Your task to perform on an android device: show emergency info Image 0: 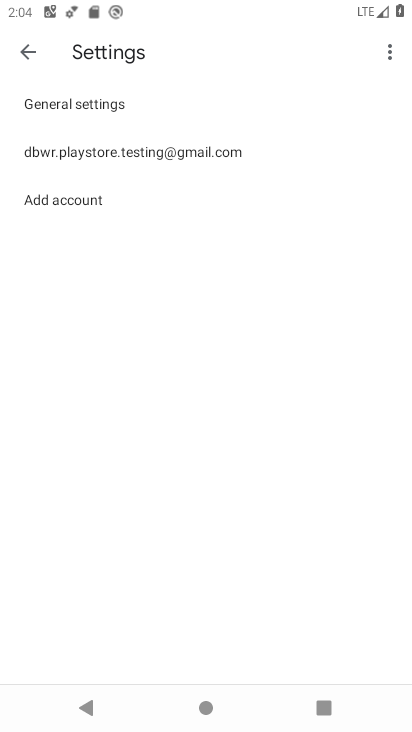
Step 0: press home button
Your task to perform on an android device: show emergency info Image 1: 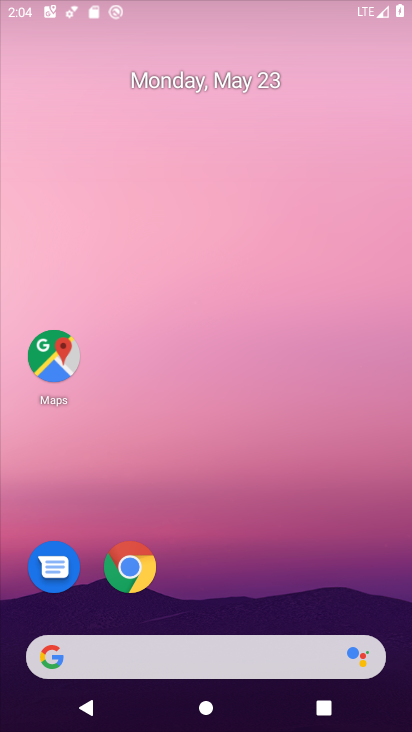
Step 1: drag from (248, 483) to (232, 136)
Your task to perform on an android device: show emergency info Image 2: 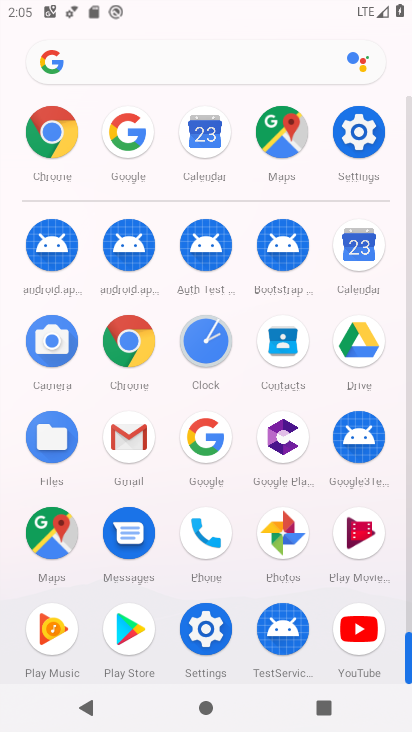
Step 2: click (201, 617)
Your task to perform on an android device: show emergency info Image 3: 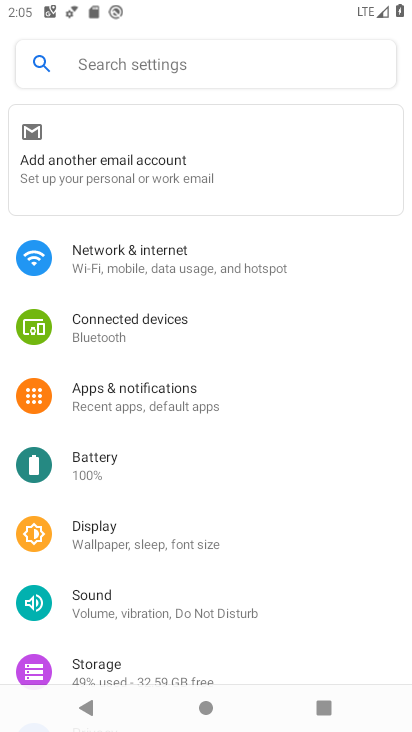
Step 3: drag from (185, 657) to (273, 241)
Your task to perform on an android device: show emergency info Image 4: 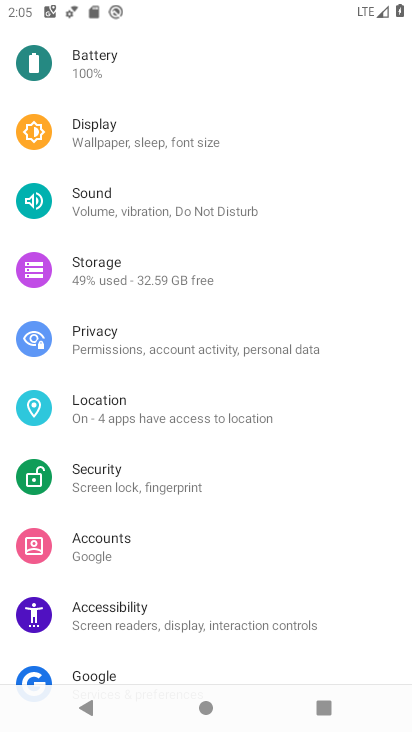
Step 4: drag from (213, 599) to (282, 275)
Your task to perform on an android device: show emergency info Image 5: 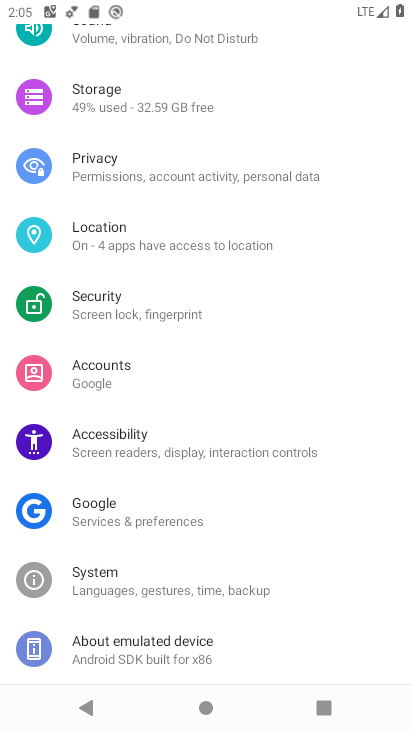
Step 5: click (171, 643)
Your task to perform on an android device: show emergency info Image 6: 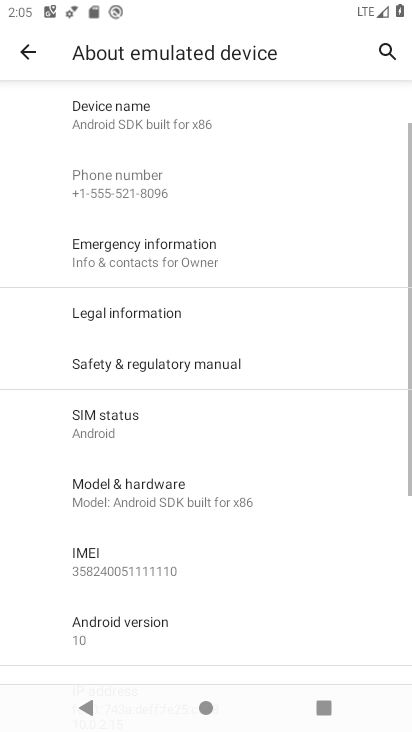
Step 6: click (160, 257)
Your task to perform on an android device: show emergency info Image 7: 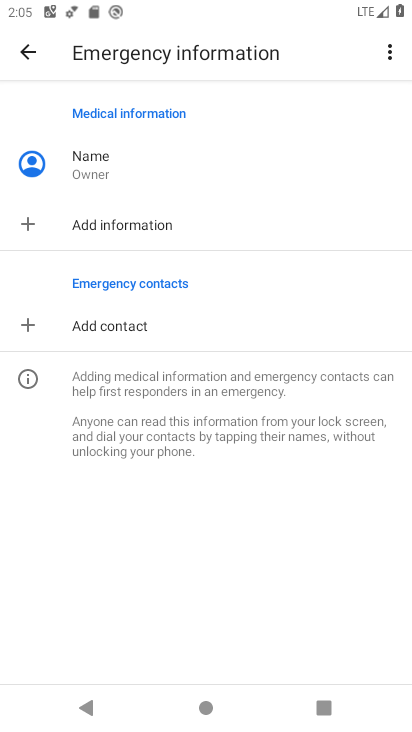
Step 7: task complete